Your task to perform on an android device: turn off airplane mode Image 0: 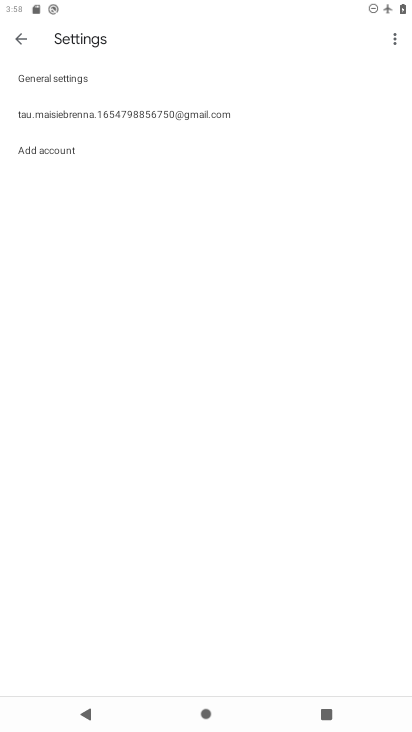
Step 0: press home button
Your task to perform on an android device: turn off airplane mode Image 1: 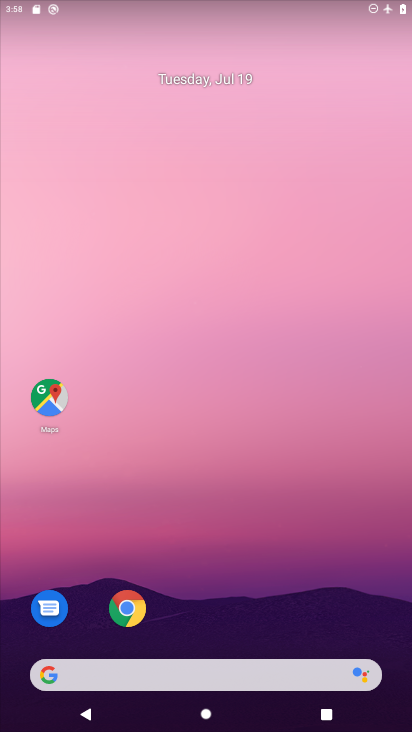
Step 1: drag from (338, 578) to (335, 60)
Your task to perform on an android device: turn off airplane mode Image 2: 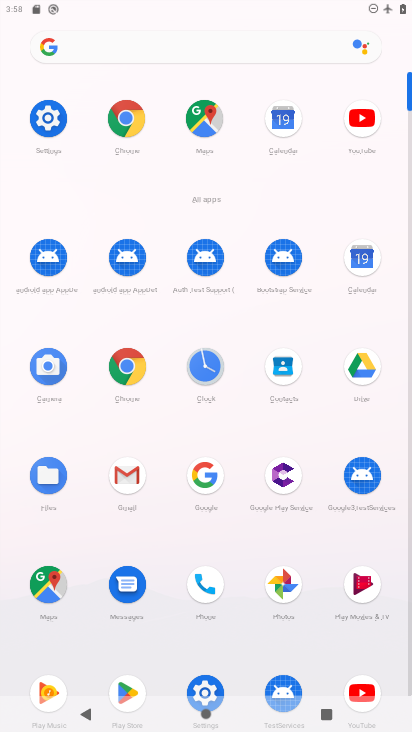
Step 2: click (58, 113)
Your task to perform on an android device: turn off airplane mode Image 3: 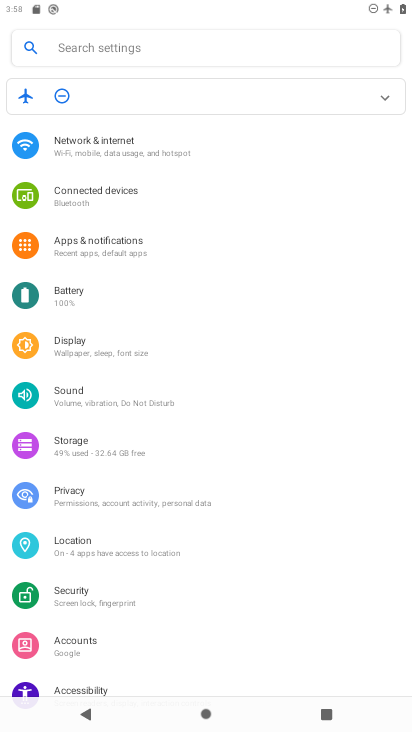
Step 3: click (104, 154)
Your task to perform on an android device: turn off airplane mode Image 4: 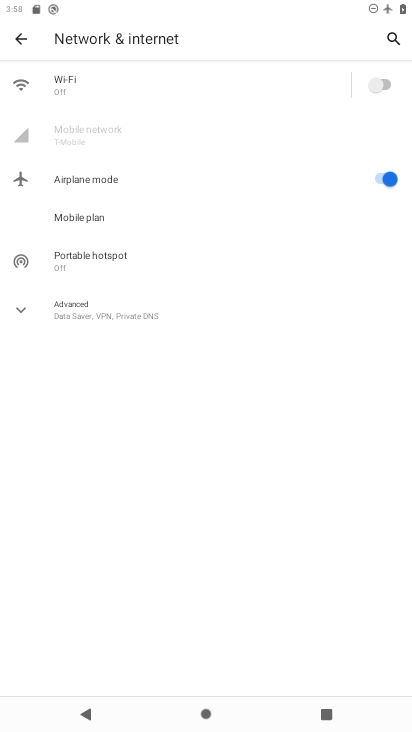
Step 4: click (389, 175)
Your task to perform on an android device: turn off airplane mode Image 5: 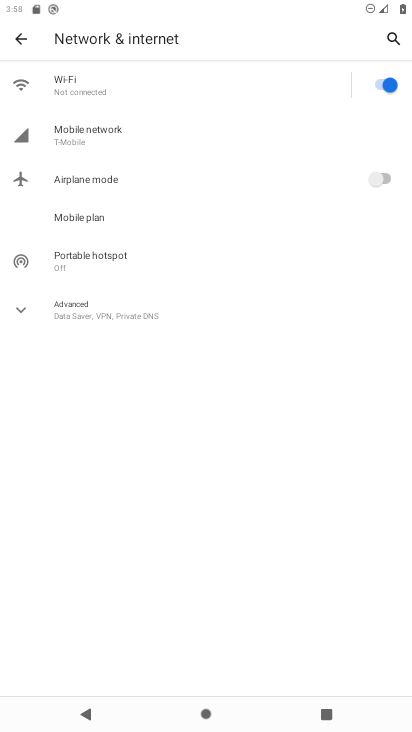
Step 5: task complete